Your task to perform on an android device: search for starred emails in the gmail app Image 0: 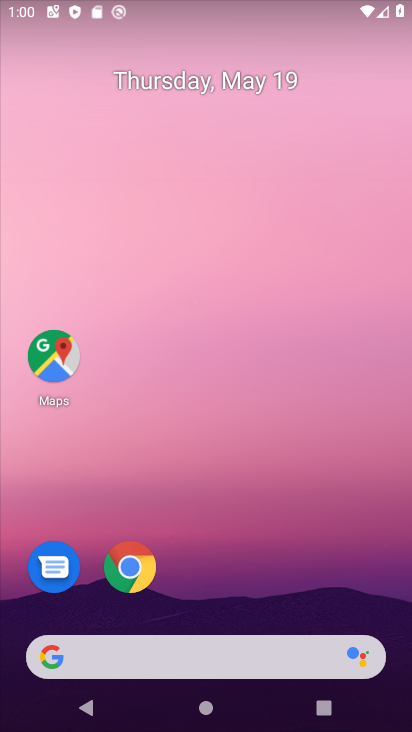
Step 0: press home button
Your task to perform on an android device: search for starred emails in the gmail app Image 1: 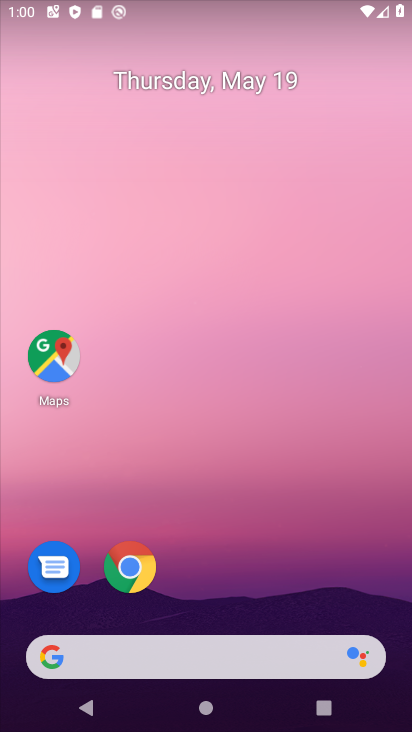
Step 1: drag from (69, 575) to (270, 240)
Your task to perform on an android device: search for starred emails in the gmail app Image 2: 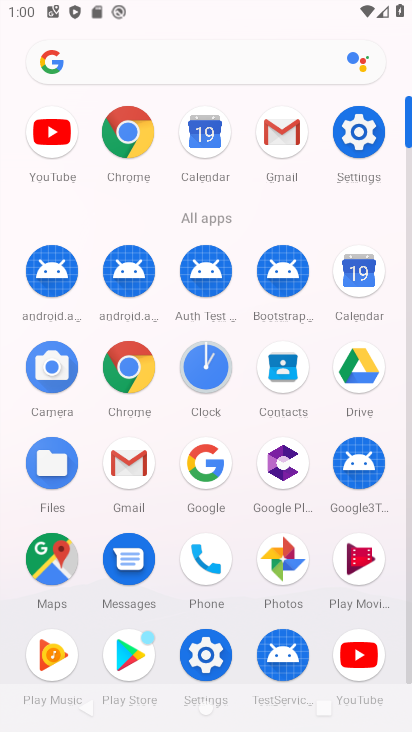
Step 2: click (300, 134)
Your task to perform on an android device: search for starred emails in the gmail app Image 3: 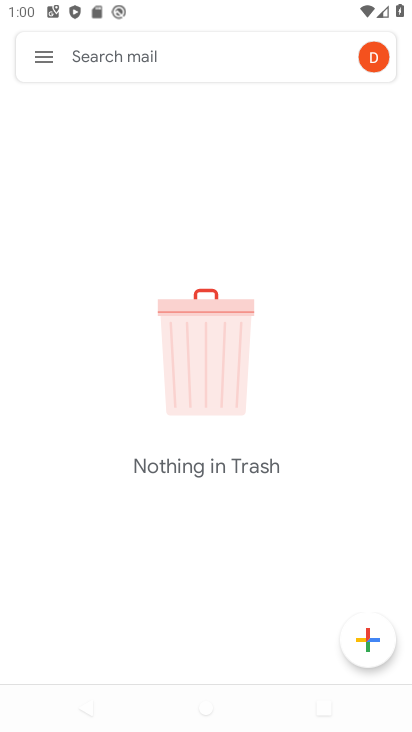
Step 3: click (47, 58)
Your task to perform on an android device: search for starred emails in the gmail app Image 4: 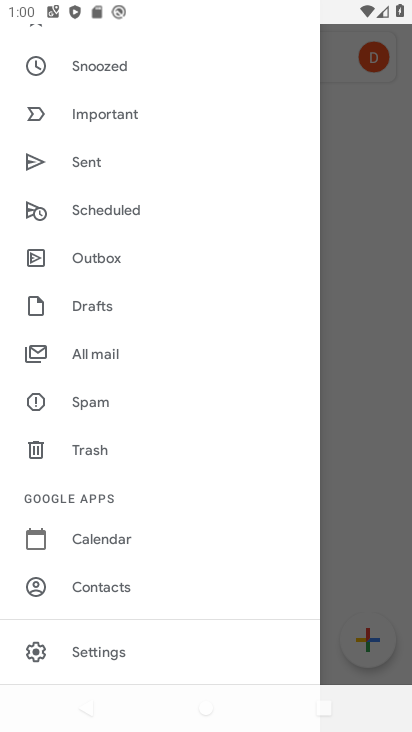
Step 4: drag from (155, 93) to (164, 479)
Your task to perform on an android device: search for starred emails in the gmail app Image 5: 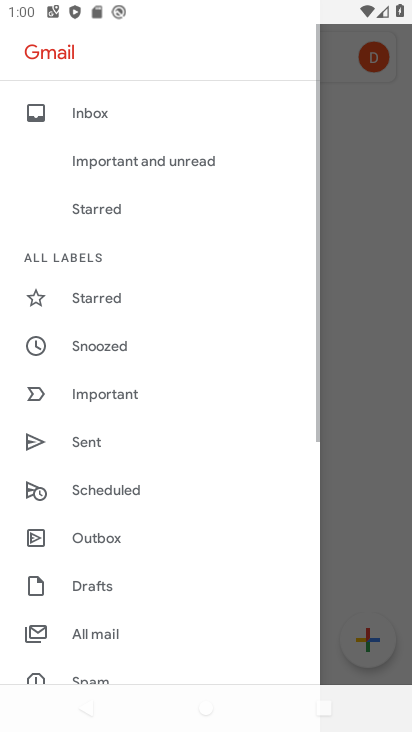
Step 5: drag from (169, 133) to (142, 471)
Your task to perform on an android device: search for starred emails in the gmail app Image 6: 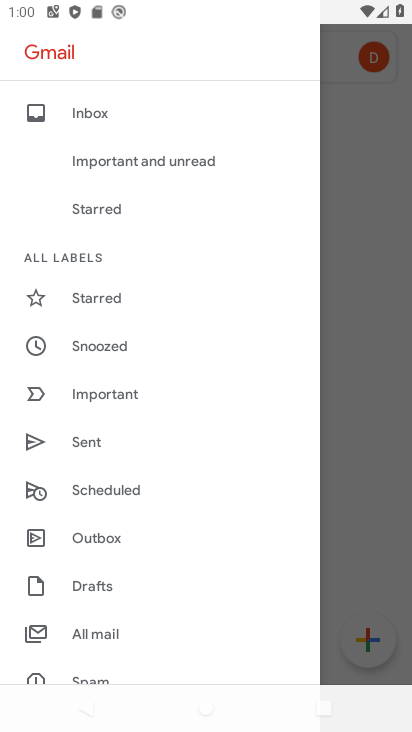
Step 6: drag from (157, 111) to (108, 547)
Your task to perform on an android device: search for starred emails in the gmail app Image 7: 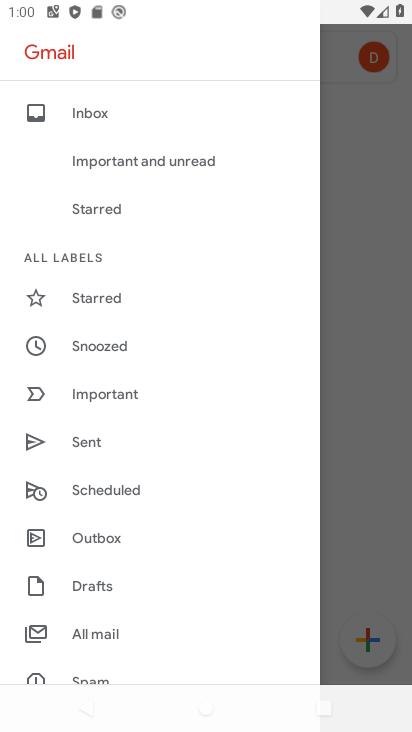
Step 7: click (84, 633)
Your task to perform on an android device: search for starred emails in the gmail app Image 8: 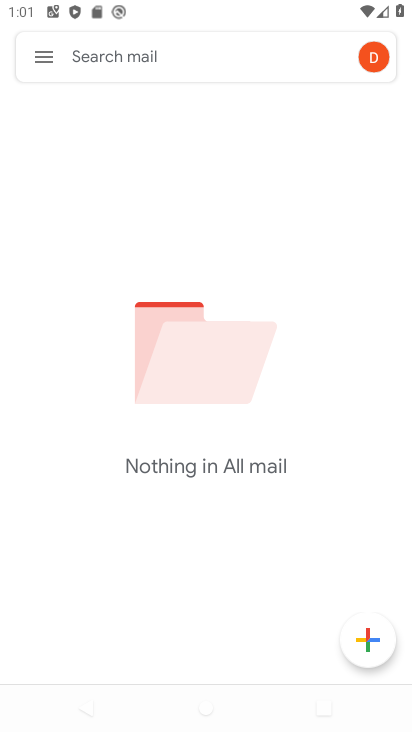
Step 8: press home button
Your task to perform on an android device: search for starred emails in the gmail app Image 9: 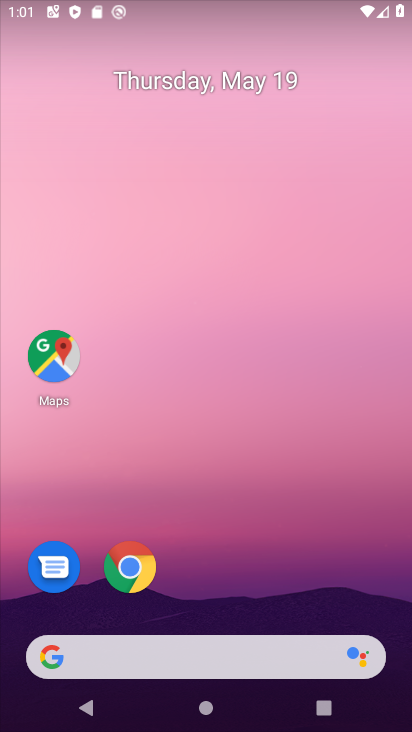
Step 9: drag from (121, 305) to (205, 64)
Your task to perform on an android device: search for starred emails in the gmail app Image 10: 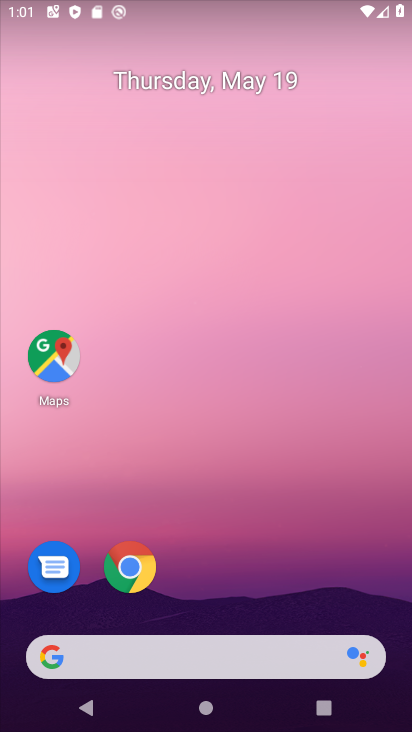
Step 10: drag from (22, 590) to (238, 144)
Your task to perform on an android device: search for starred emails in the gmail app Image 11: 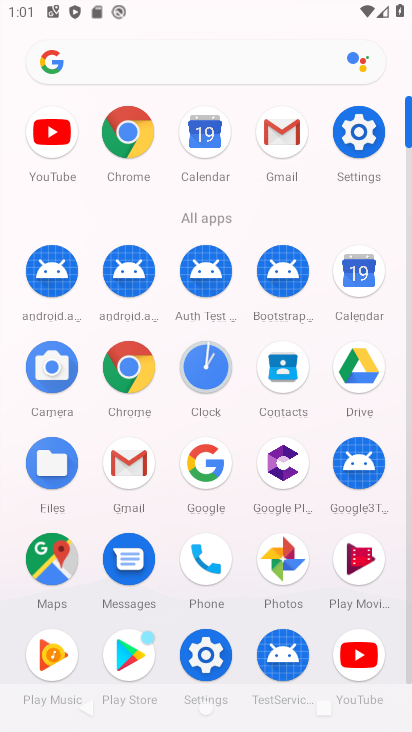
Step 11: click (285, 133)
Your task to perform on an android device: search for starred emails in the gmail app Image 12: 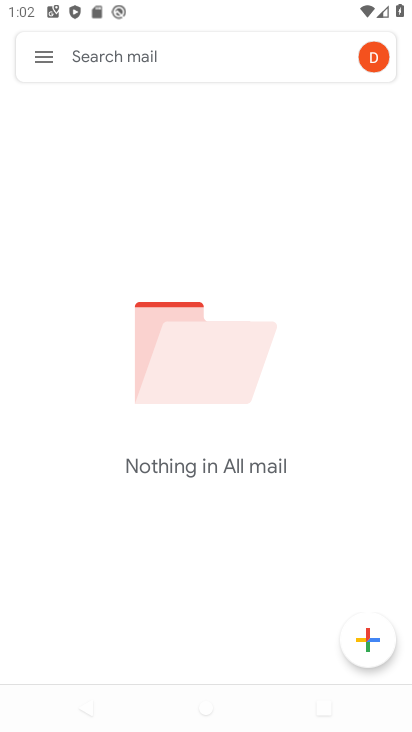
Step 12: click (41, 62)
Your task to perform on an android device: search for starred emails in the gmail app Image 13: 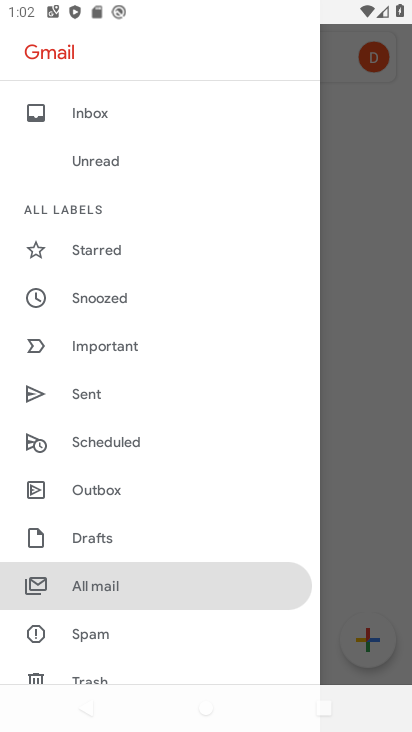
Step 13: drag from (198, 170) to (110, 503)
Your task to perform on an android device: search for starred emails in the gmail app Image 14: 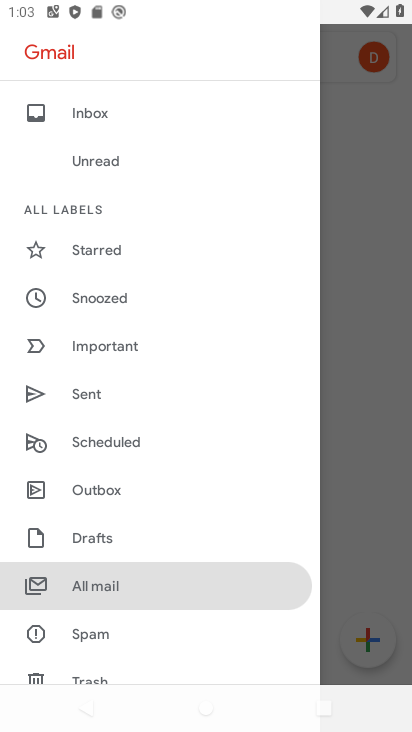
Step 14: click (107, 245)
Your task to perform on an android device: search for starred emails in the gmail app Image 15: 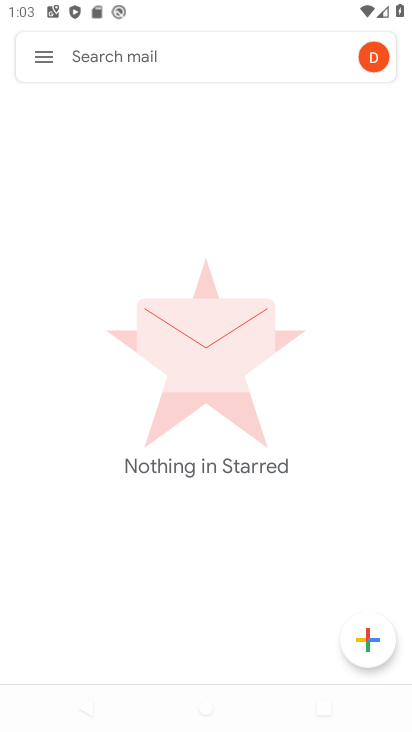
Step 15: task complete